Your task to perform on an android device: Open Yahoo.com Image 0: 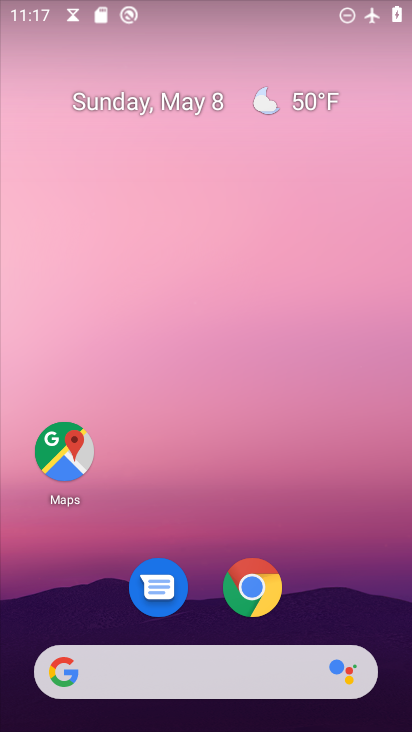
Step 0: click (255, 586)
Your task to perform on an android device: Open Yahoo.com Image 1: 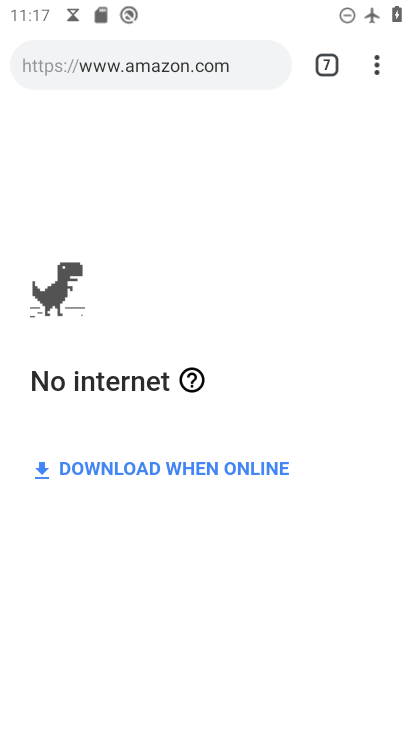
Step 1: click (327, 68)
Your task to perform on an android device: Open Yahoo.com Image 2: 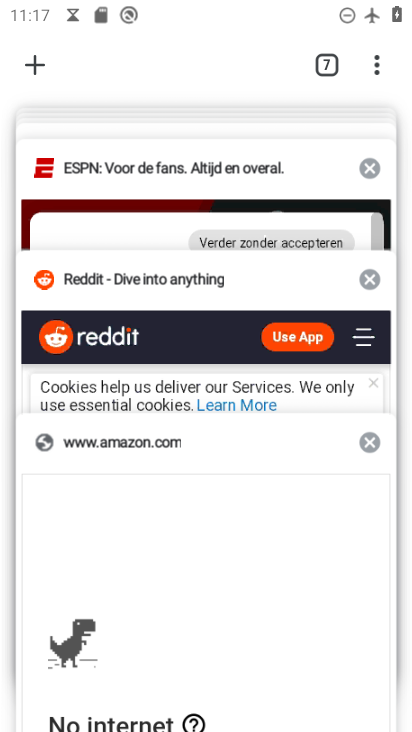
Step 2: drag from (212, 205) to (203, 691)
Your task to perform on an android device: Open Yahoo.com Image 3: 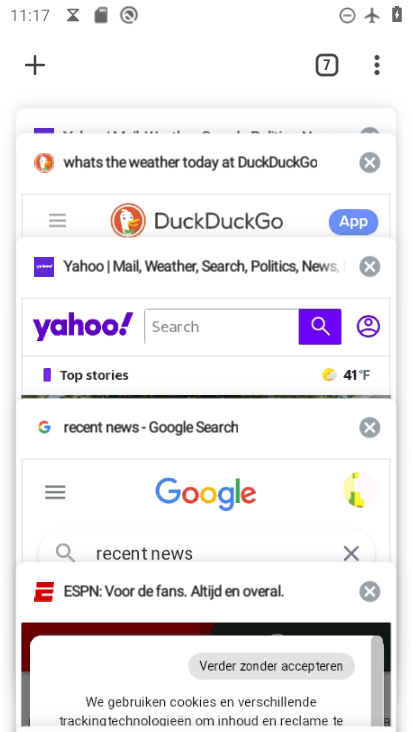
Step 3: click (178, 355)
Your task to perform on an android device: Open Yahoo.com Image 4: 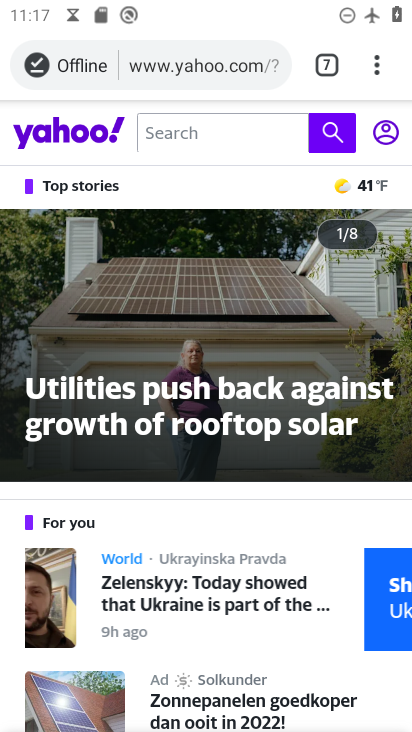
Step 4: task complete